Your task to perform on an android device: turn off translation in the chrome app Image 0: 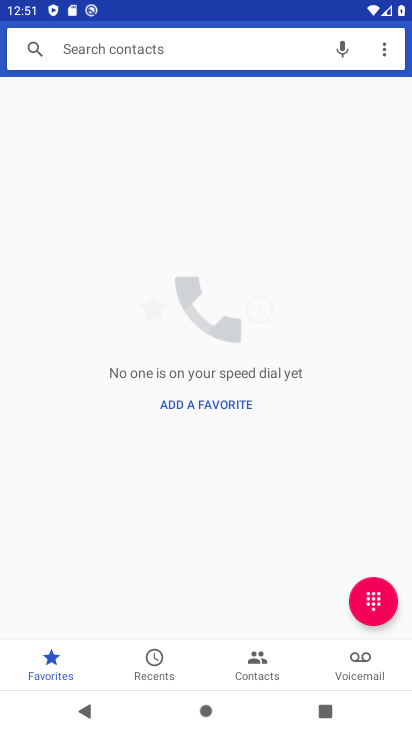
Step 0: press home button
Your task to perform on an android device: turn off translation in the chrome app Image 1: 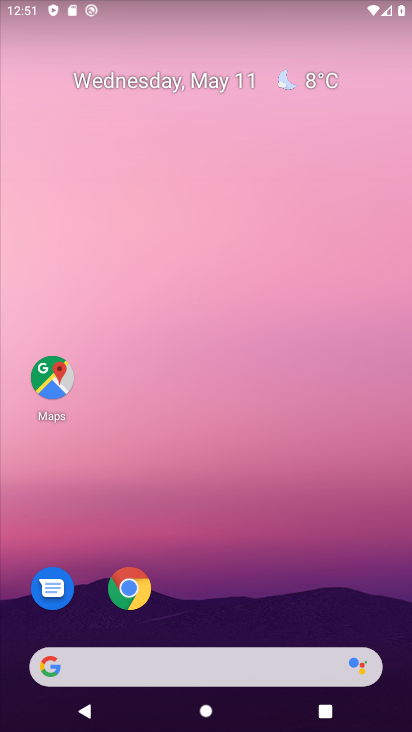
Step 1: click (116, 582)
Your task to perform on an android device: turn off translation in the chrome app Image 2: 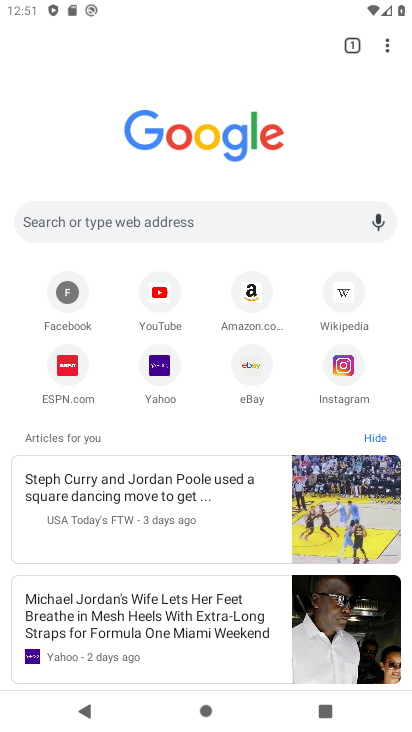
Step 2: drag from (387, 45) to (260, 428)
Your task to perform on an android device: turn off translation in the chrome app Image 3: 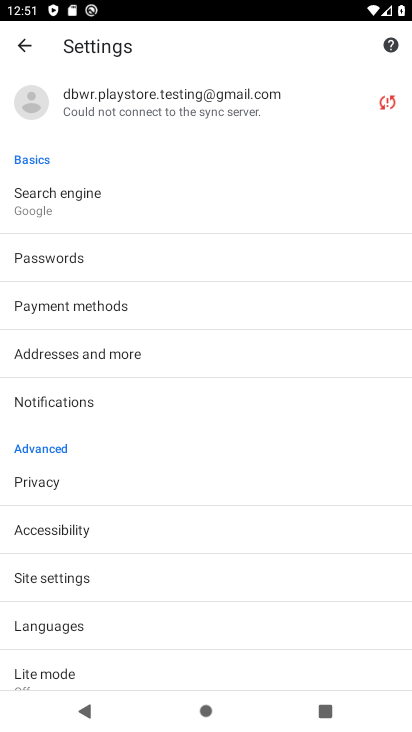
Step 3: click (126, 618)
Your task to perform on an android device: turn off translation in the chrome app Image 4: 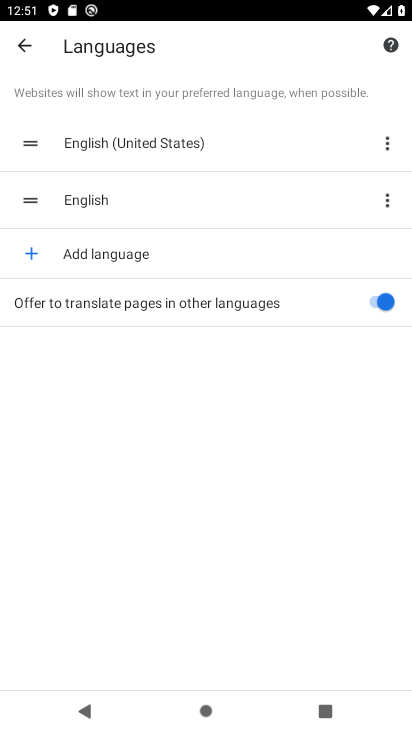
Step 4: click (387, 300)
Your task to perform on an android device: turn off translation in the chrome app Image 5: 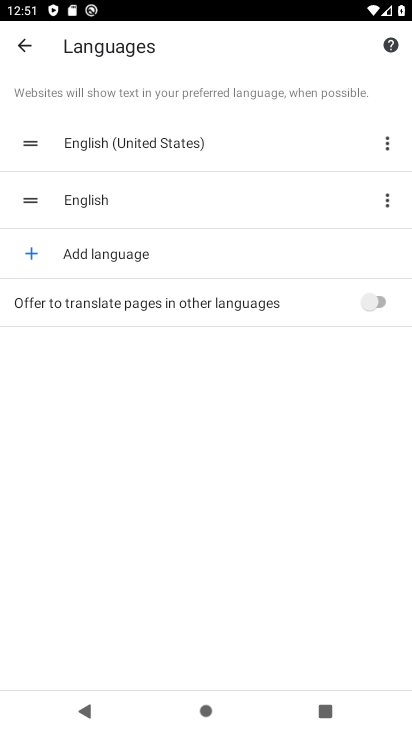
Step 5: task complete